Your task to perform on an android device: Go to Reddit.com Image 0: 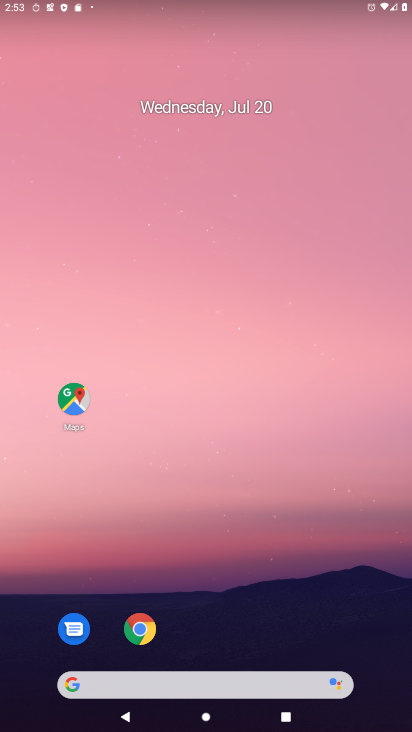
Step 0: press home button
Your task to perform on an android device: Go to Reddit.com Image 1: 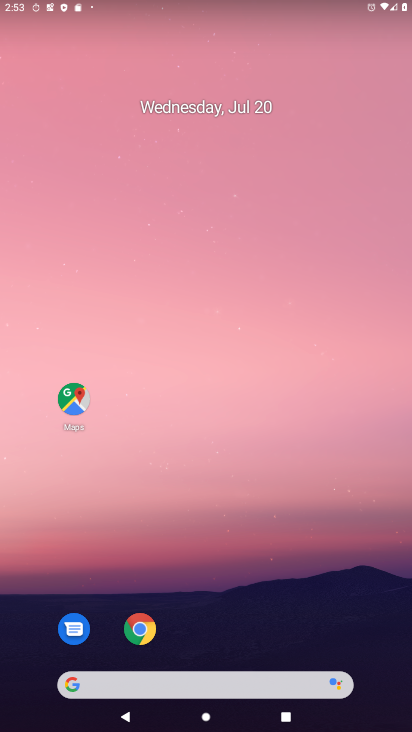
Step 1: click (138, 619)
Your task to perform on an android device: Go to Reddit.com Image 2: 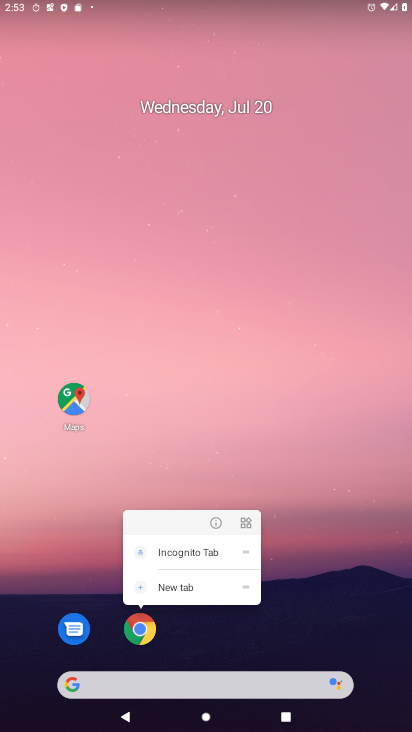
Step 2: click (137, 623)
Your task to perform on an android device: Go to Reddit.com Image 3: 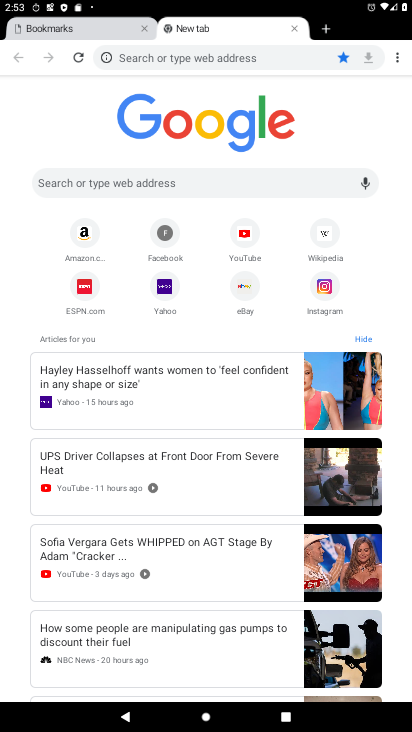
Step 3: click (143, 180)
Your task to perform on an android device: Go to Reddit.com Image 4: 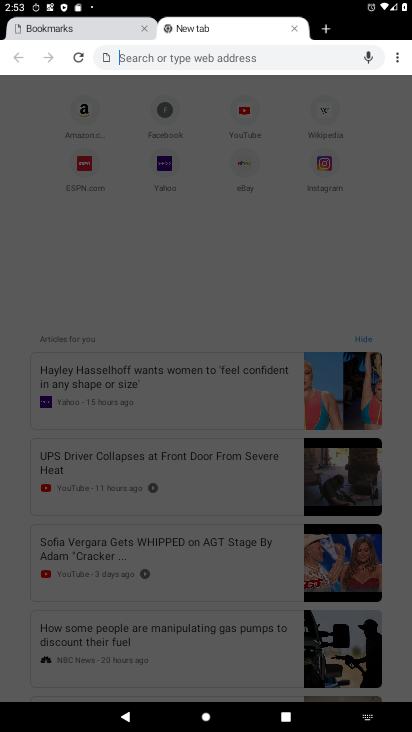
Step 4: type "reddit"
Your task to perform on an android device: Go to Reddit.com Image 5: 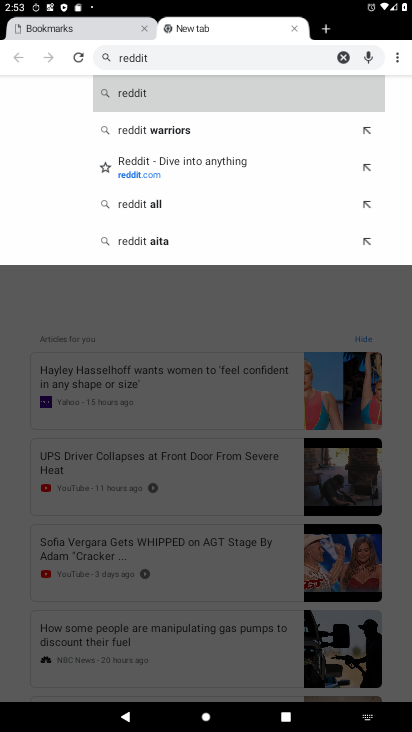
Step 5: click (179, 168)
Your task to perform on an android device: Go to Reddit.com Image 6: 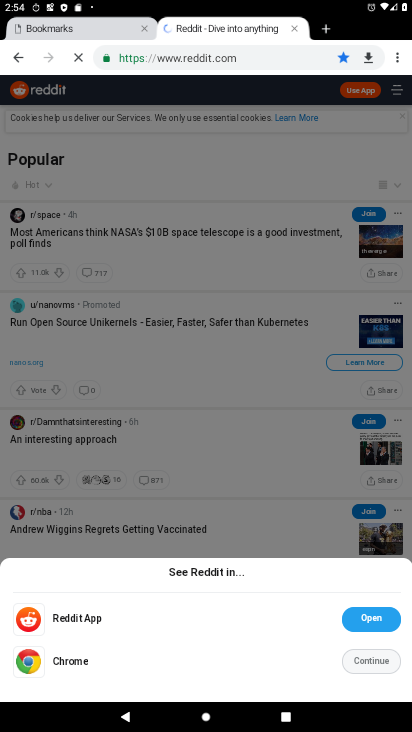
Step 6: click (370, 663)
Your task to perform on an android device: Go to Reddit.com Image 7: 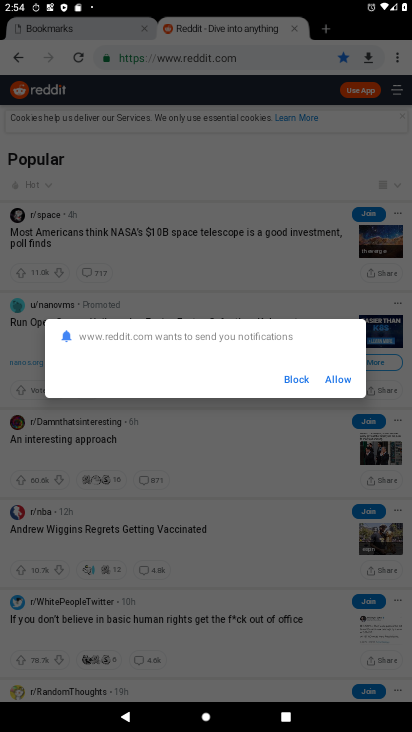
Step 7: click (336, 378)
Your task to perform on an android device: Go to Reddit.com Image 8: 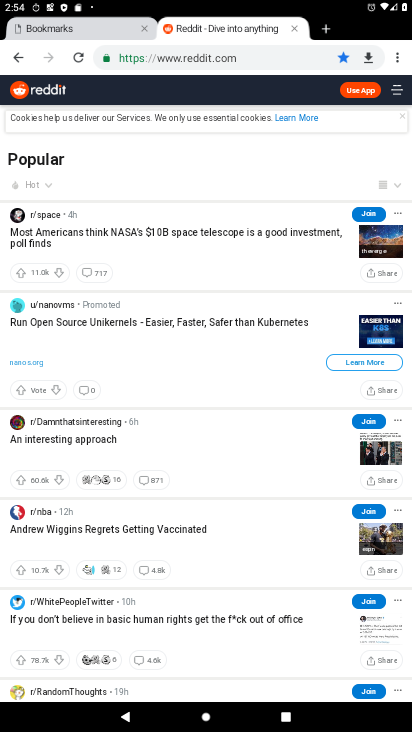
Step 8: task complete